Your task to perform on an android device: toggle priority inbox in the gmail app Image 0: 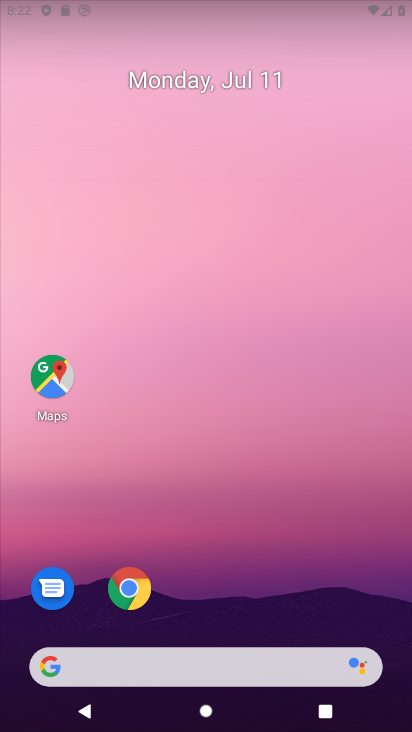
Step 0: drag from (238, 566) to (353, 0)
Your task to perform on an android device: toggle priority inbox in the gmail app Image 1: 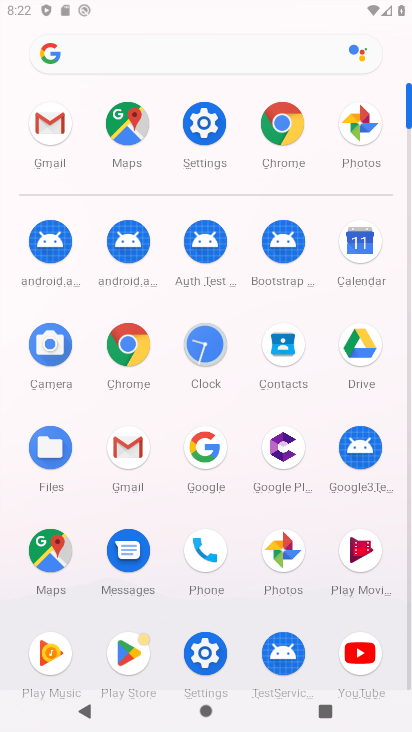
Step 1: click (43, 145)
Your task to perform on an android device: toggle priority inbox in the gmail app Image 2: 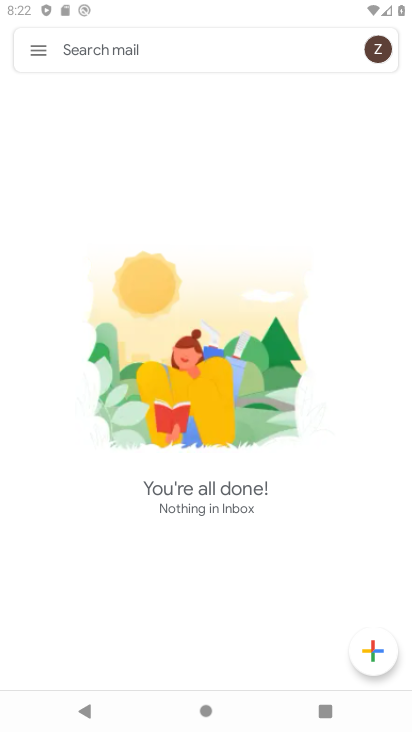
Step 2: click (46, 45)
Your task to perform on an android device: toggle priority inbox in the gmail app Image 3: 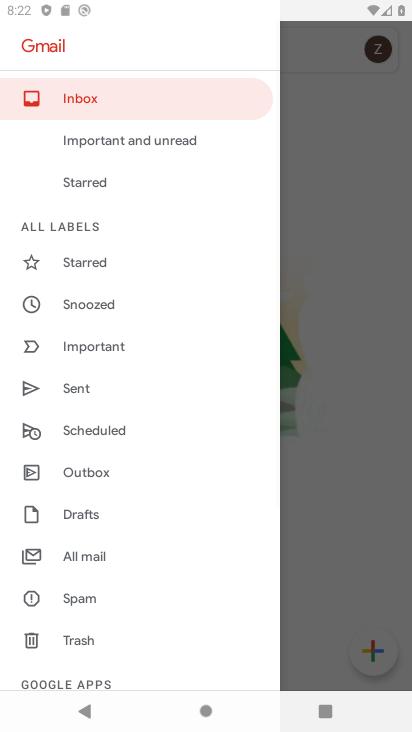
Step 3: drag from (128, 644) to (245, 219)
Your task to perform on an android device: toggle priority inbox in the gmail app Image 4: 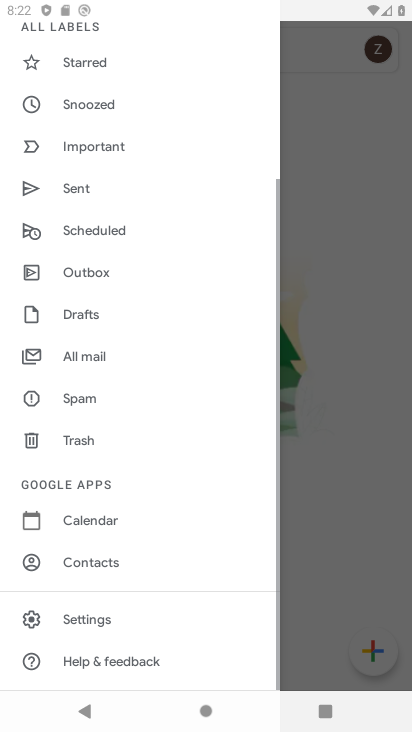
Step 4: click (116, 621)
Your task to perform on an android device: toggle priority inbox in the gmail app Image 5: 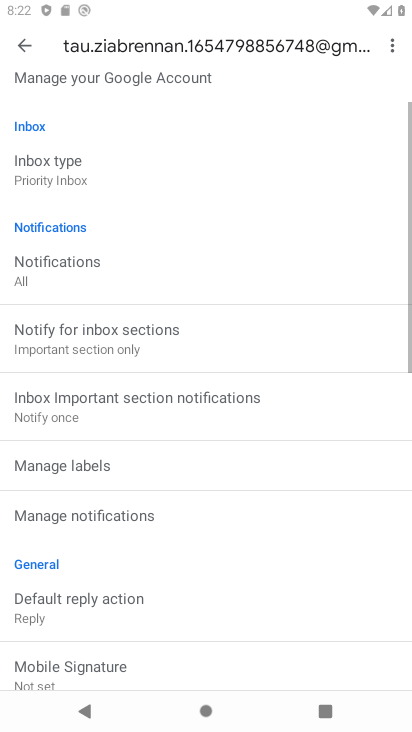
Step 5: click (87, 170)
Your task to perform on an android device: toggle priority inbox in the gmail app Image 6: 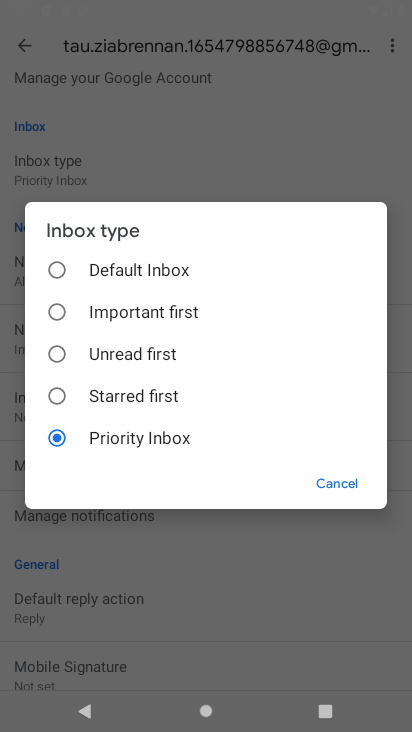
Step 6: click (53, 433)
Your task to perform on an android device: toggle priority inbox in the gmail app Image 7: 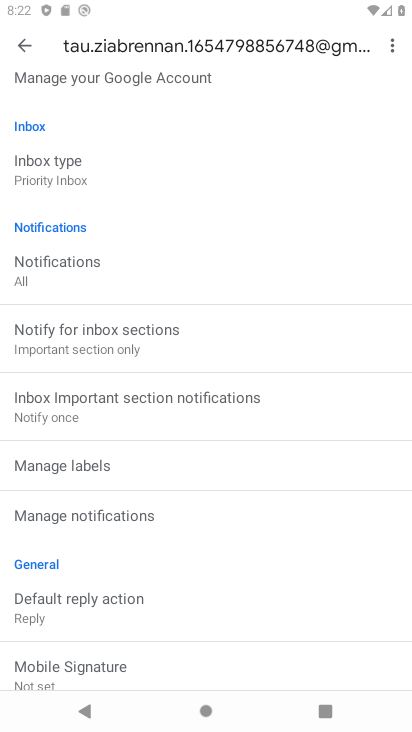
Step 7: task complete